Your task to perform on an android device: turn off data saver in the chrome app Image 0: 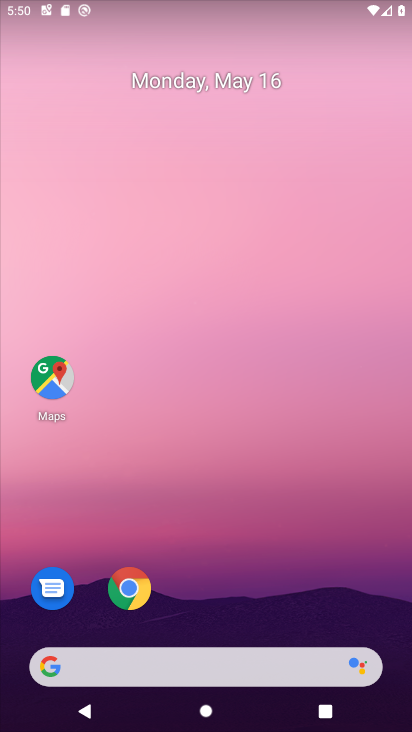
Step 0: click (140, 578)
Your task to perform on an android device: turn off data saver in the chrome app Image 1: 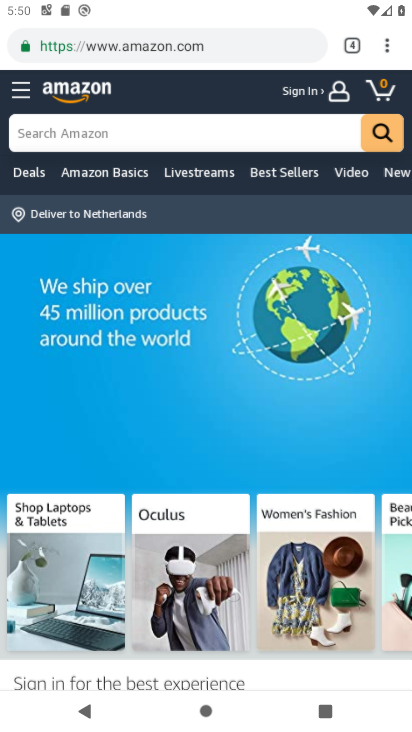
Step 1: click (383, 45)
Your task to perform on an android device: turn off data saver in the chrome app Image 2: 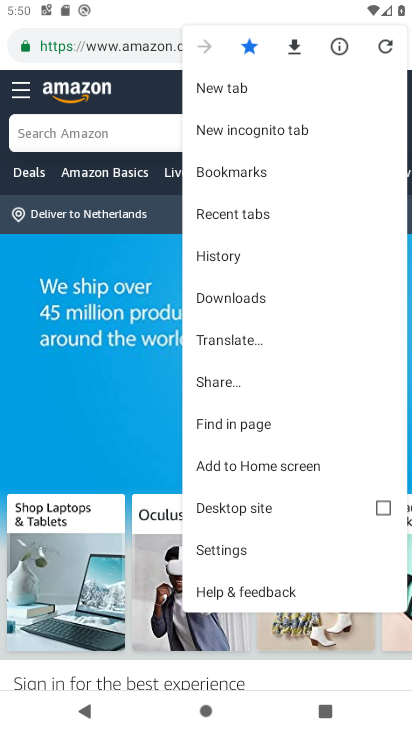
Step 2: click (241, 548)
Your task to perform on an android device: turn off data saver in the chrome app Image 3: 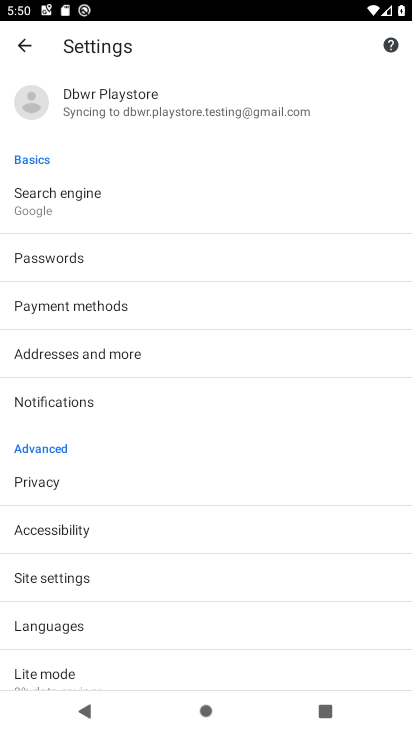
Step 3: drag from (93, 632) to (129, 397)
Your task to perform on an android device: turn off data saver in the chrome app Image 4: 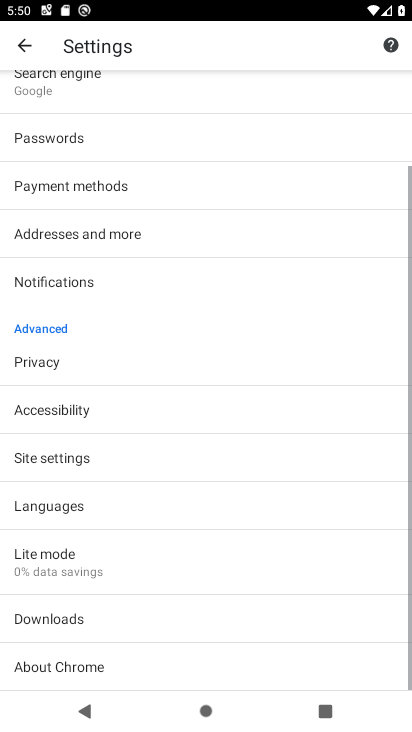
Step 4: click (78, 557)
Your task to perform on an android device: turn off data saver in the chrome app Image 5: 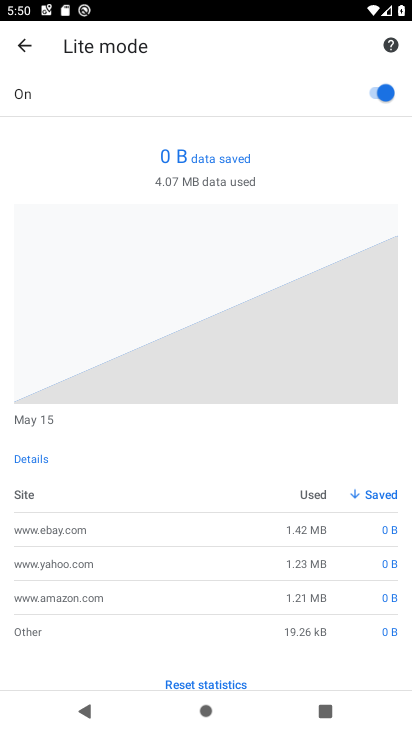
Step 5: click (371, 88)
Your task to perform on an android device: turn off data saver in the chrome app Image 6: 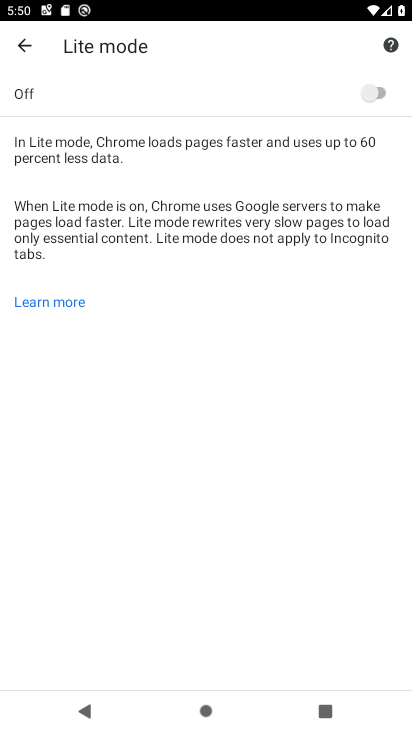
Step 6: task complete